Your task to perform on an android device: delete the emails in spam in the gmail app Image 0: 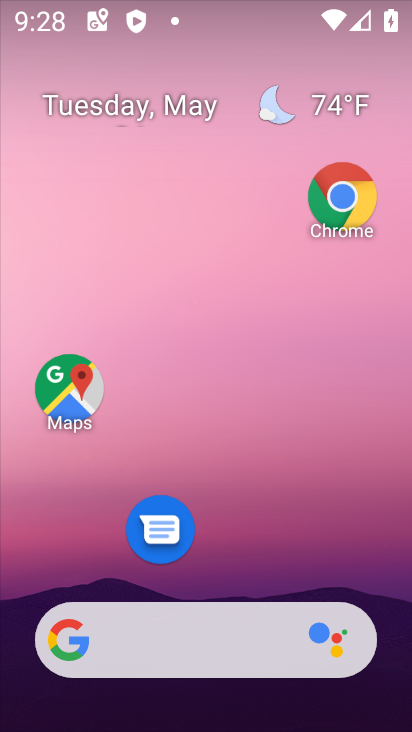
Step 0: drag from (207, 214) to (183, 68)
Your task to perform on an android device: delete the emails in spam in the gmail app Image 1: 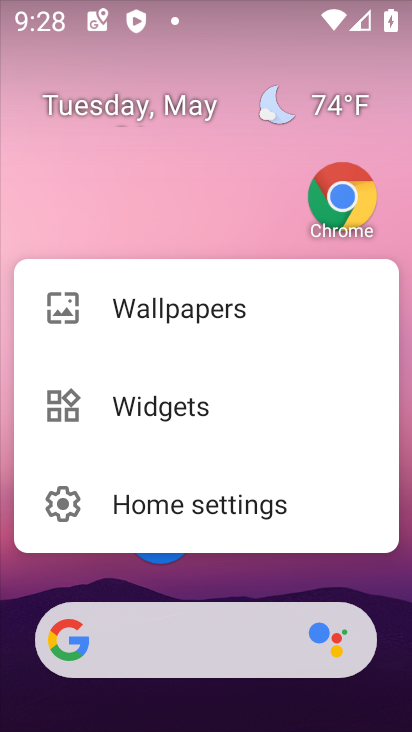
Step 1: click (211, 228)
Your task to perform on an android device: delete the emails in spam in the gmail app Image 2: 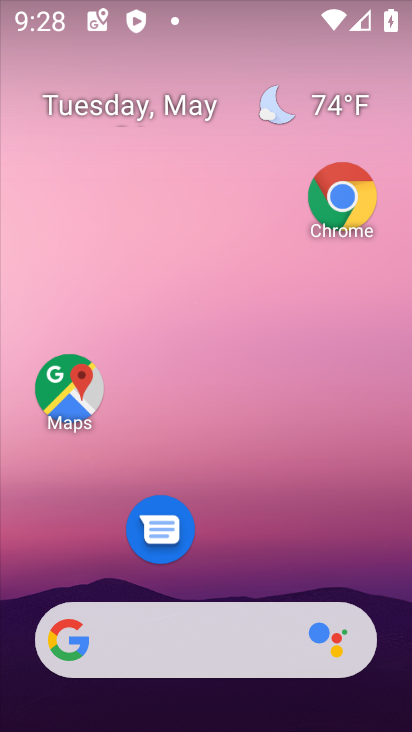
Step 2: drag from (231, 491) to (229, 38)
Your task to perform on an android device: delete the emails in spam in the gmail app Image 3: 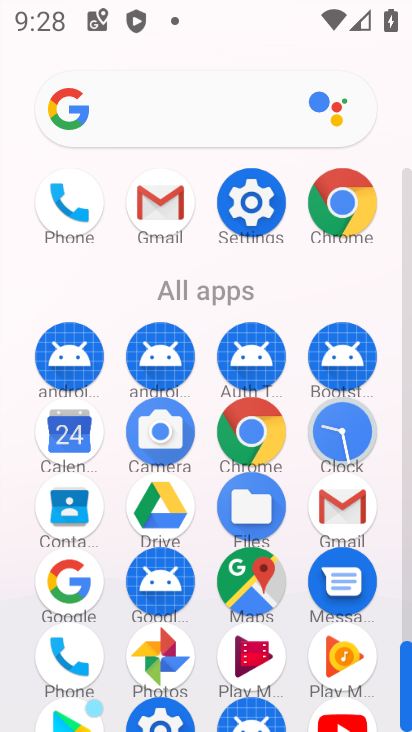
Step 3: click (338, 498)
Your task to perform on an android device: delete the emails in spam in the gmail app Image 4: 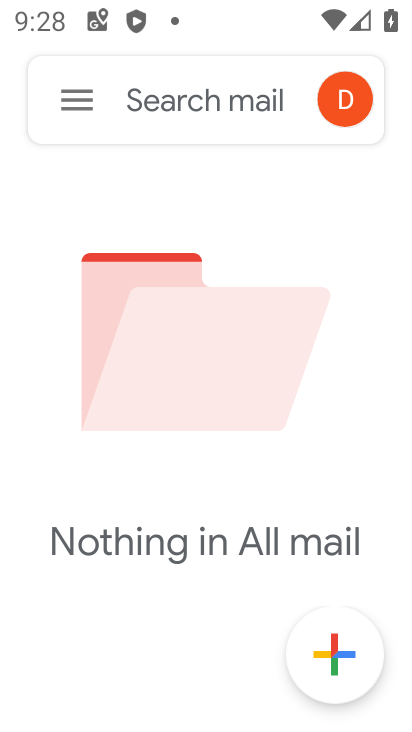
Step 4: click (74, 102)
Your task to perform on an android device: delete the emails in spam in the gmail app Image 5: 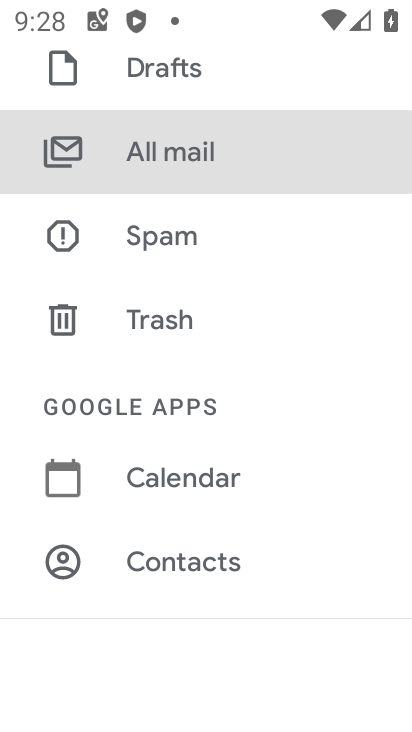
Step 5: click (205, 234)
Your task to perform on an android device: delete the emails in spam in the gmail app Image 6: 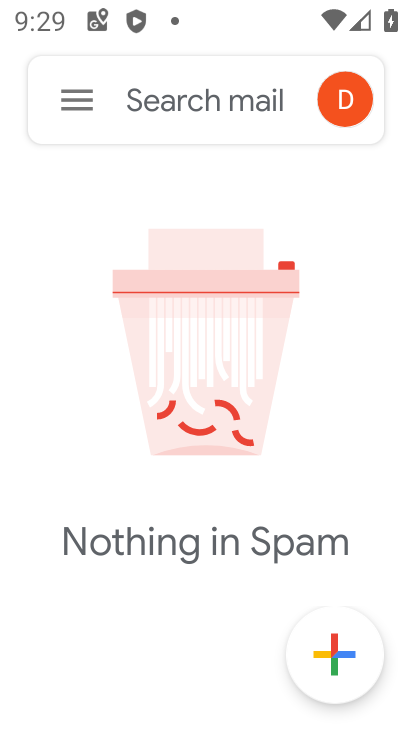
Step 6: task complete